Your task to perform on an android device: Open battery settings Image 0: 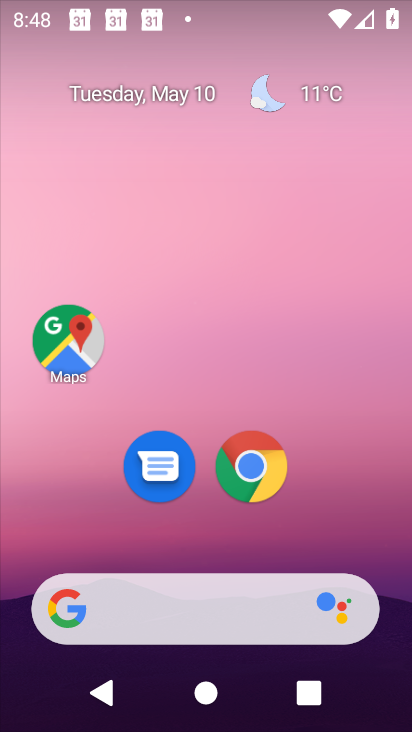
Step 0: drag from (196, 542) to (249, 16)
Your task to perform on an android device: Open battery settings Image 1: 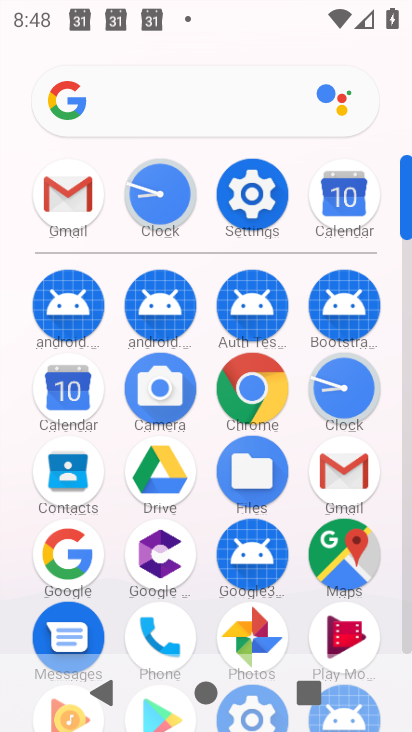
Step 1: click (261, 203)
Your task to perform on an android device: Open battery settings Image 2: 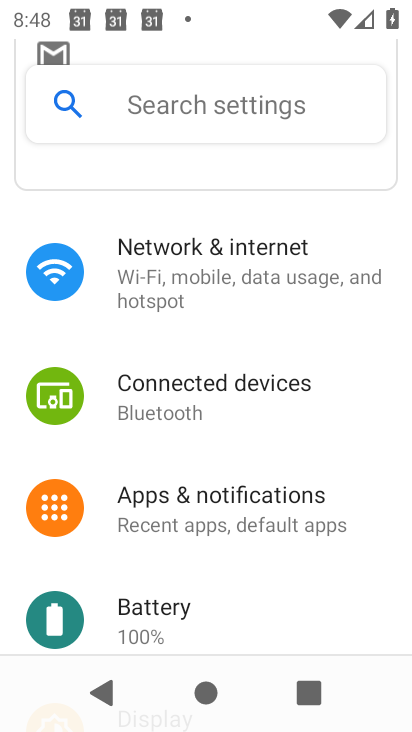
Step 2: click (175, 610)
Your task to perform on an android device: Open battery settings Image 3: 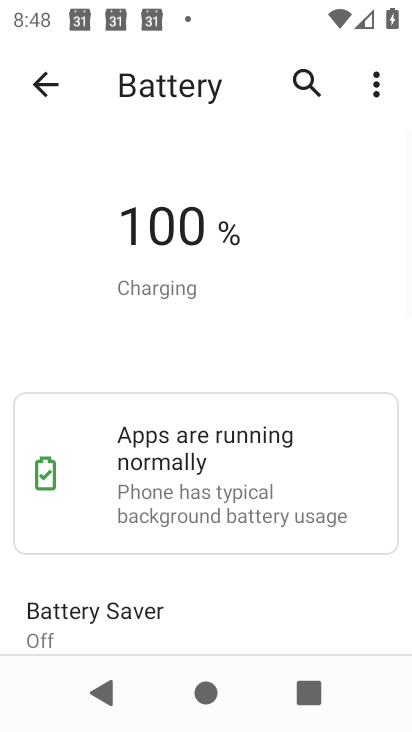
Step 3: click (375, 88)
Your task to perform on an android device: Open battery settings Image 4: 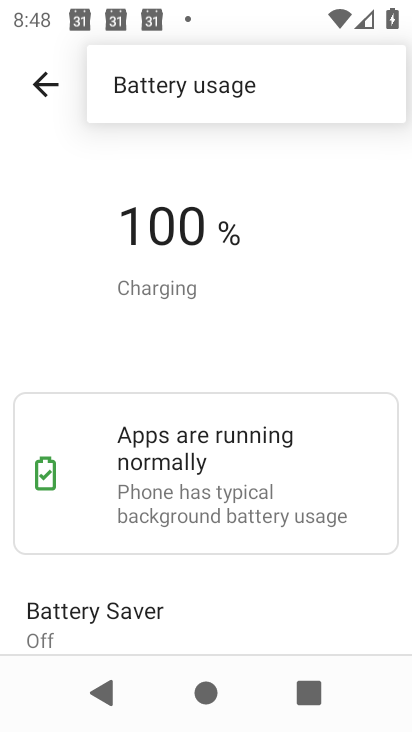
Step 4: task complete